Your task to perform on an android device: See recent photos Image 0: 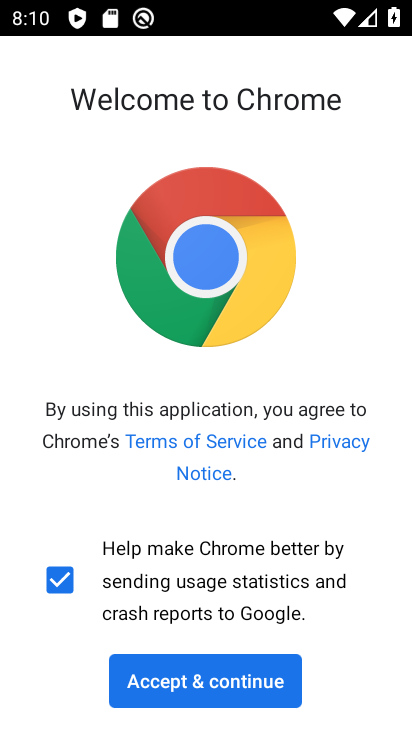
Step 0: press home button
Your task to perform on an android device: See recent photos Image 1: 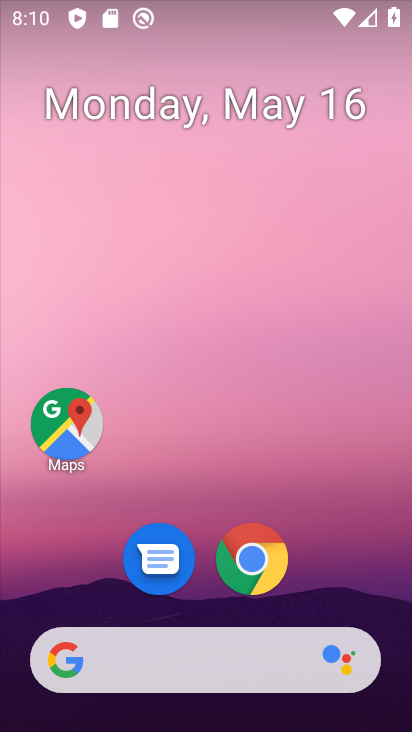
Step 1: drag from (325, 542) to (381, 142)
Your task to perform on an android device: See recent photos Image 2: 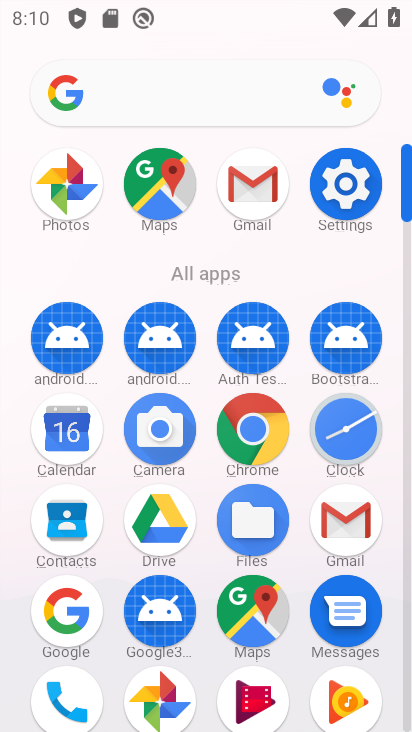
Step 2: click (67, 199)
Your task to perform on an android device: See recent photos Image 3: 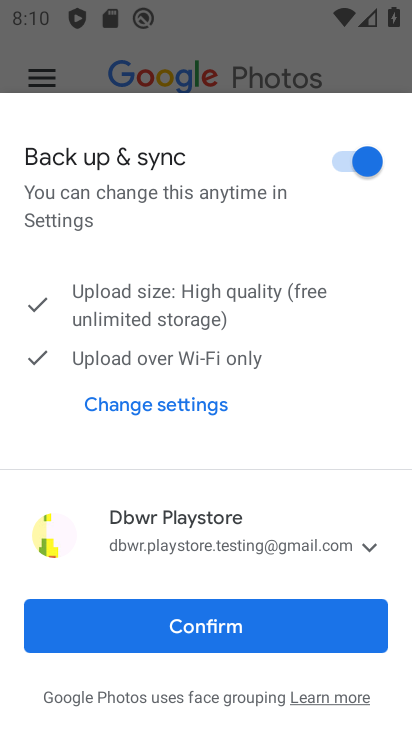
Step 3: click (226, 633)
Your task to perform on an android device: See recent photos Image 4: 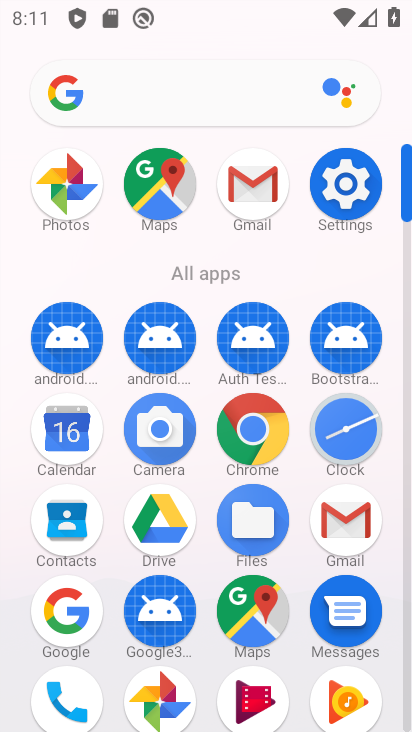
Step 4: click (83, 189)
Your task to perform on an android device: See recent photos Image 5: 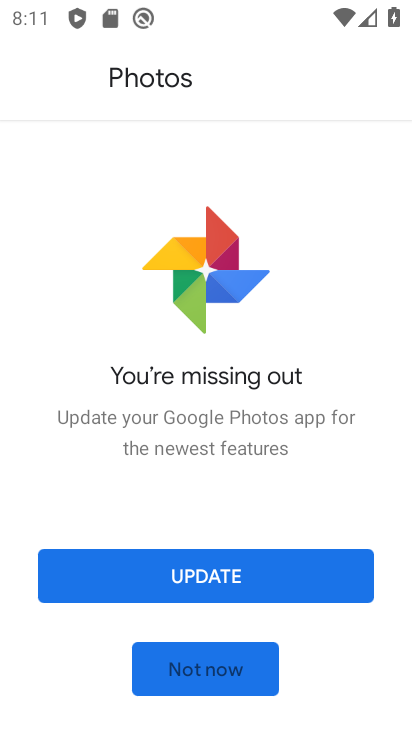
Step 5: click (222, 572)
Your task to perform on an android device: See recent photos Image 6: 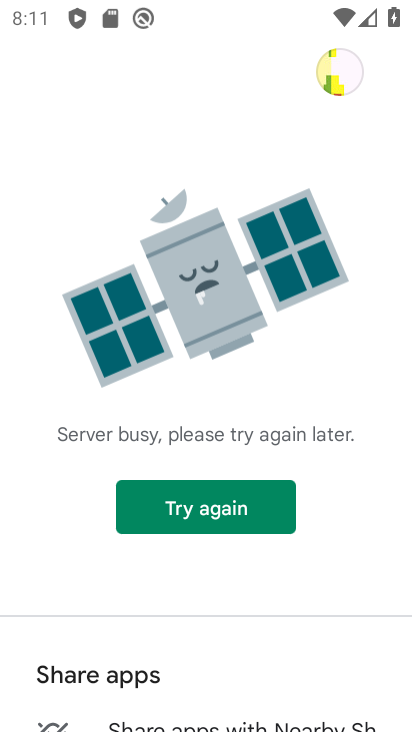
Step 6: task complete